Your task to perform on an android device: Is it going to rain this weekend? Image 0: 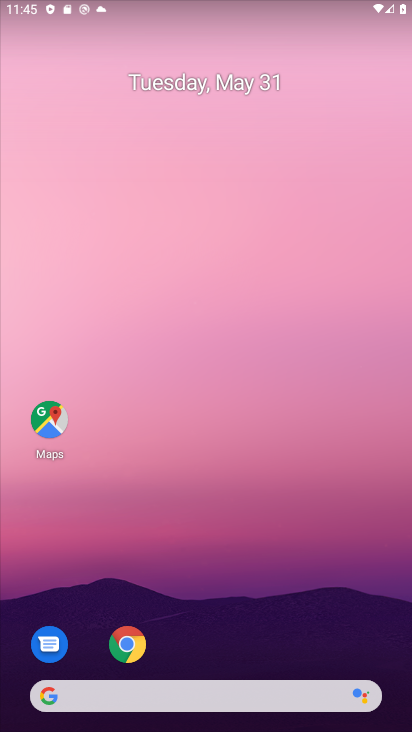
Step 0: drag from (330, 639) to (330, 276)
Your task to perform on an android device: Is it going to rain this weekend? Image 1: 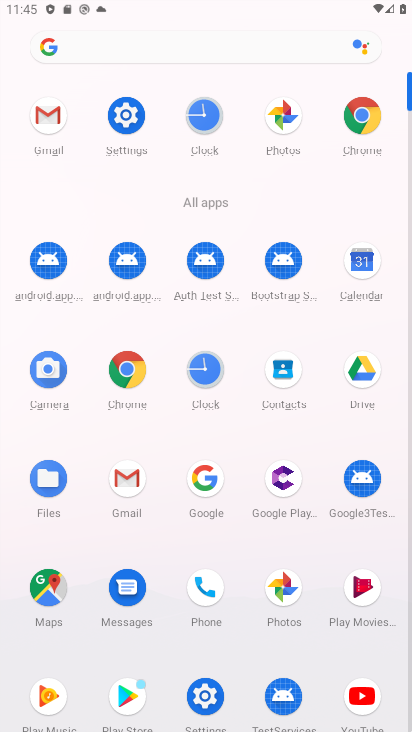
Step 1: click (137, 394)
Your task to perform on an android device: Is it going to rain this weekend? Image 2: 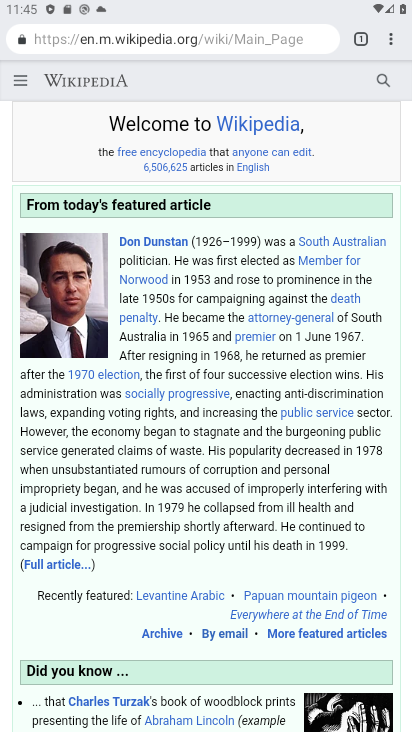
Step 2: click (208, 38)
Your task to perform on an android device: Is it going to rain this weekend? Image 3: 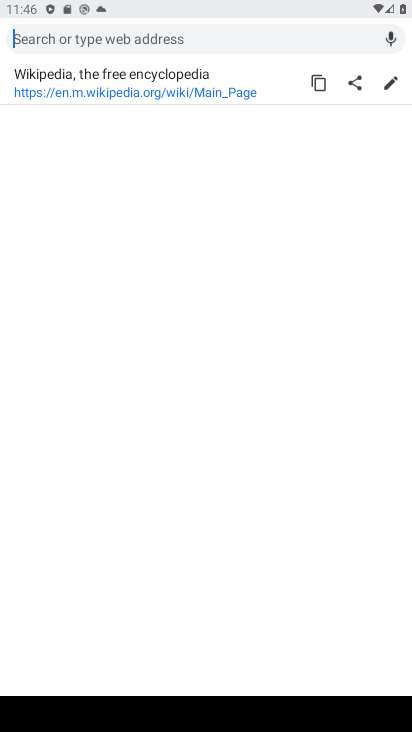
Step 3: type "is it going to rain this weekend"
Your task to perform on an android device: Is it going to rain this weekend? Image 4: 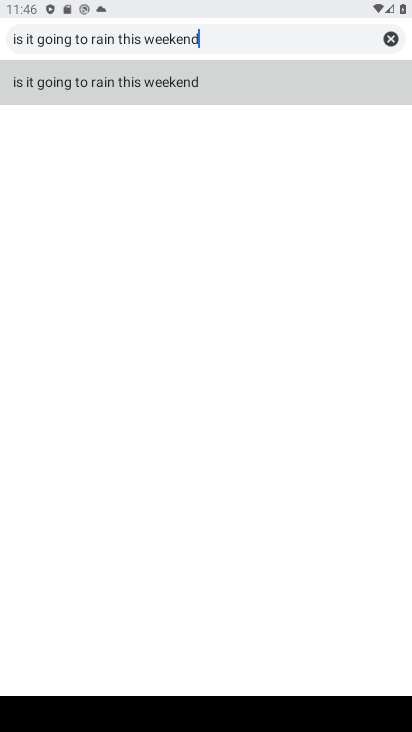
Step 4: click (149, 95)
Your task to perform on an android device: Is it going to rain this weekend? Image 5: 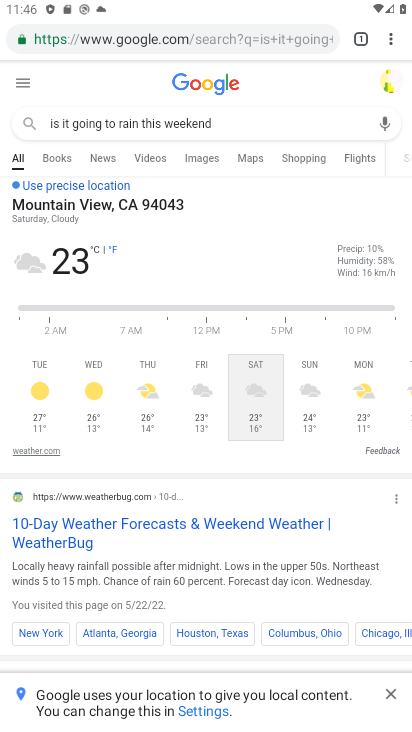
Step 5: task complete